Your task to perform on an android device: toggle location history Image 0: 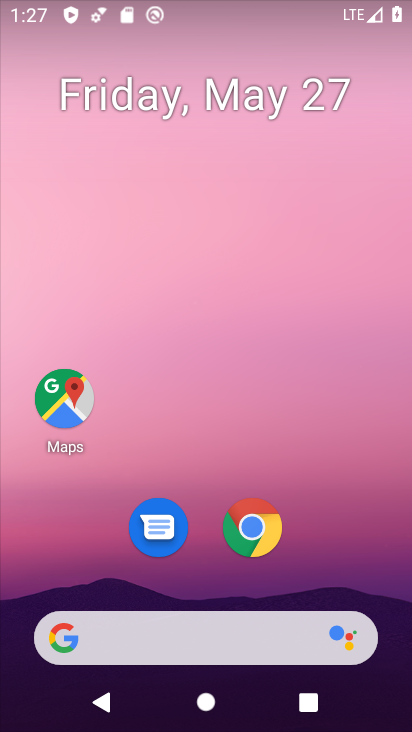
Step 0: click (265, 700)
Your task to perform on an android device: toggle location history Image 1: 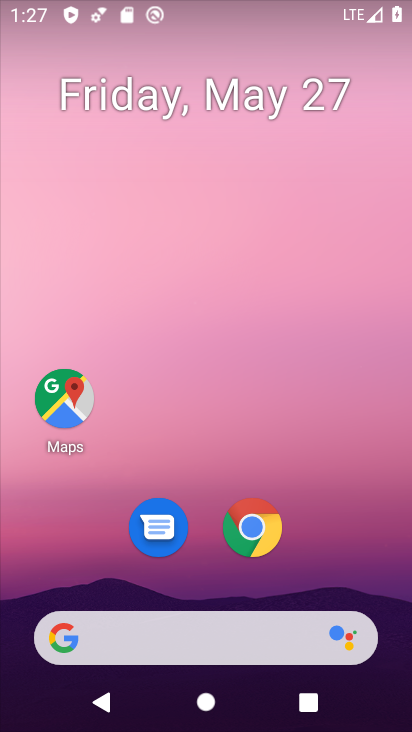
Step 1: click (49, 388)
Your task to perform on an android device: toggle location history Image 2: 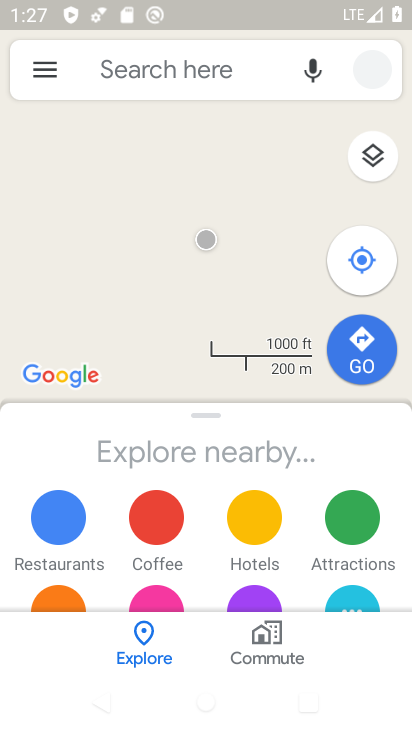
Step 2: click (42, 64)
Your task to perform on an android device: toggle location history Image 3: 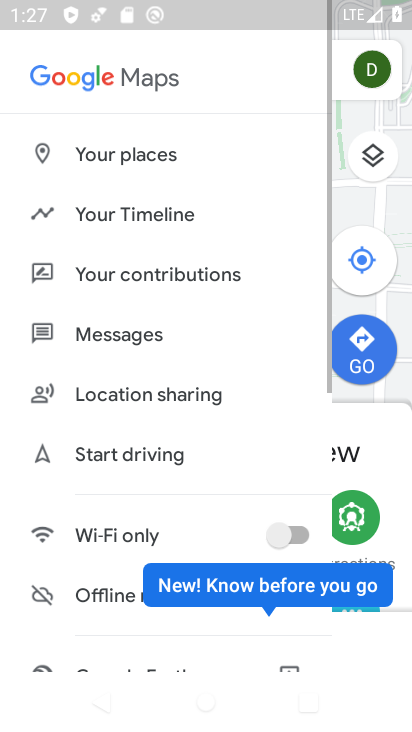
Step 3: click (42, 76)
Your task to perform on an android device: toggle location history Image 4: 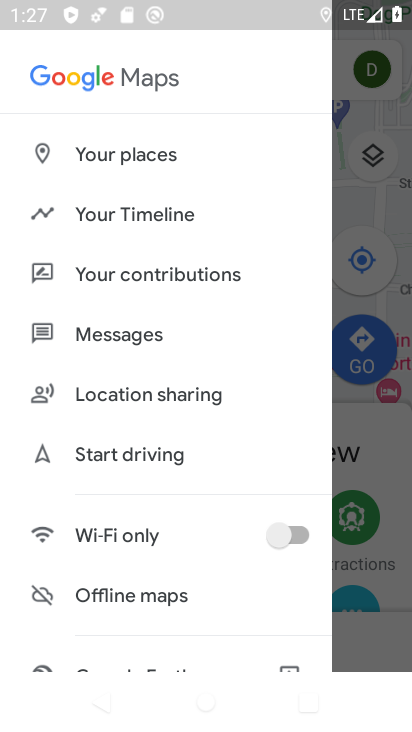
Step 4: drag from (164, 594) to (161, 53)
Your task to perform on an android device: toggle location history Image 5: 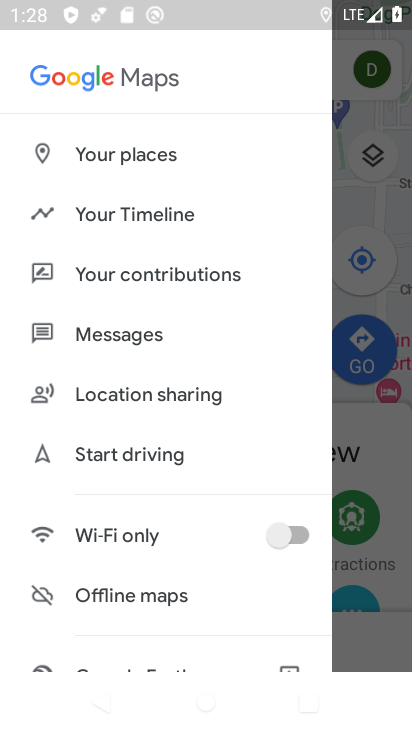
Step 5: click (186, 203)
Your task to perform on an android device: toggle location history Image 6: 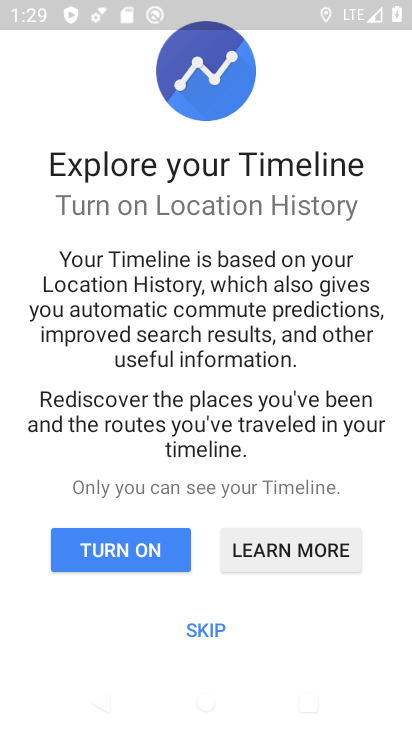
Step 6: click (210, 629)
Your task to perform on an android device: toggle location history Image 7: 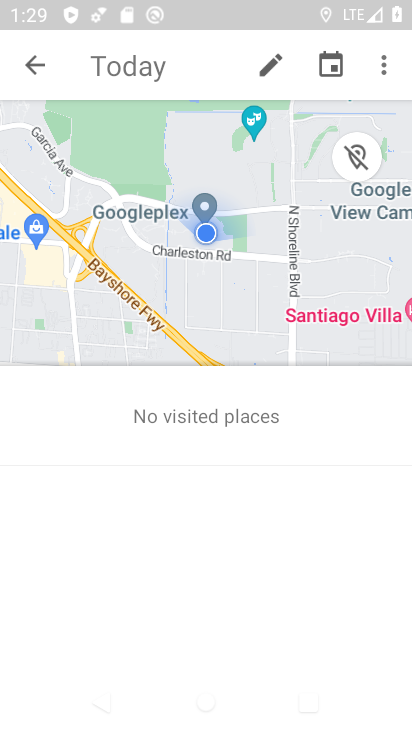
Step 7: click (385, 64)
Your task to perform on an android device: toggle location history Image 8: 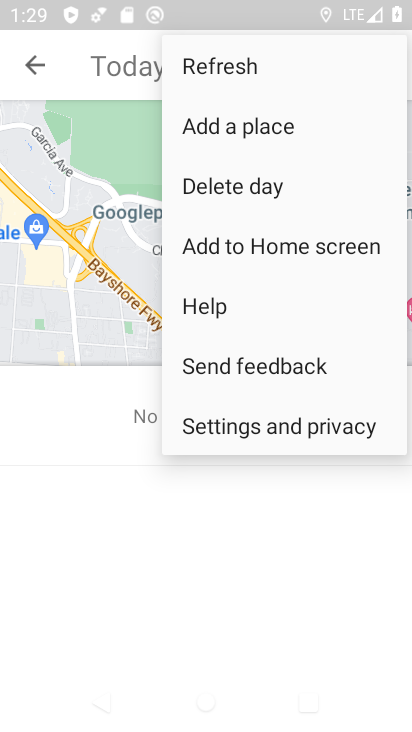
Step 8: click (276, 425)
Your task to perform on an android device: toggle location history Image 9: 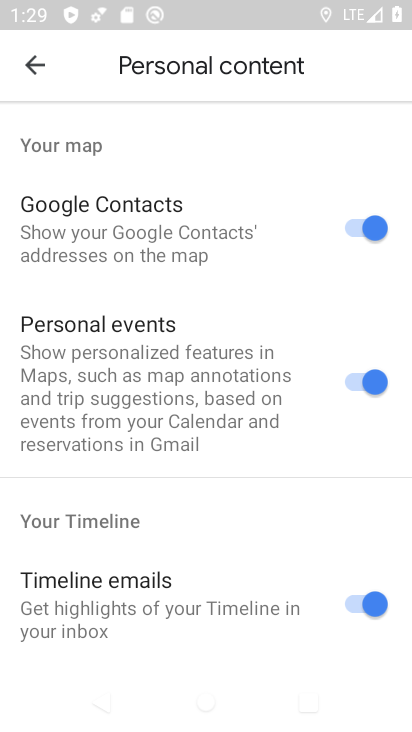
Step 9: drag from (210, 589) to (292, 94)
Your task to perform on an android device: toggle location history Image 10: 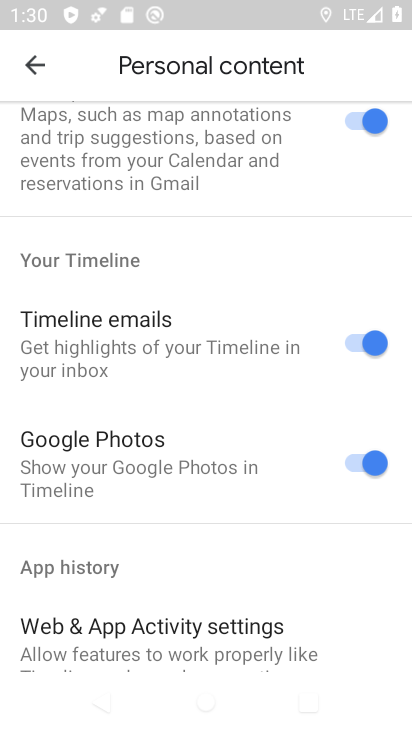
Step 10: drag from (244, 591) to (311, 208)
Your task to perform on an android device: toggle location history Image 11: 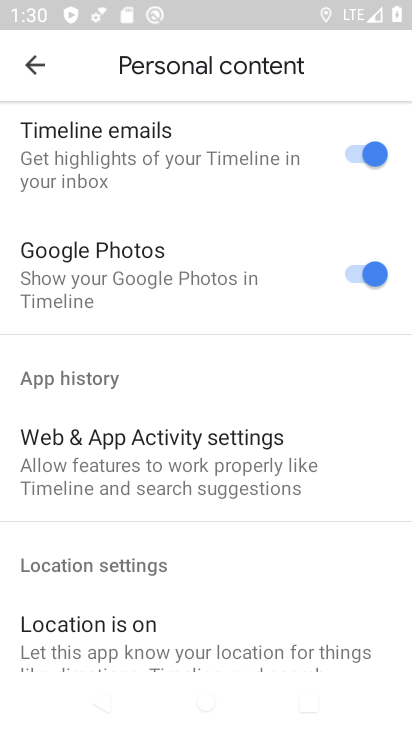
Step 11: drag from (266, 673) to (347, 242)
Your task to perform on an android device: toggle location history Image 12: 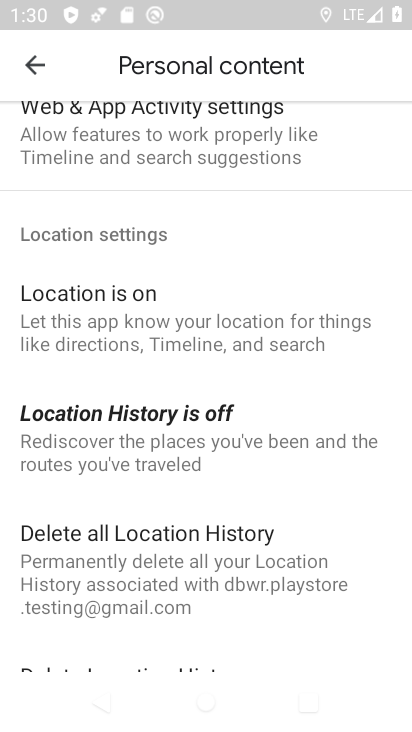
Step 12: click (159, 466)
Your task to perform on an android device: toggle location history Image 13: 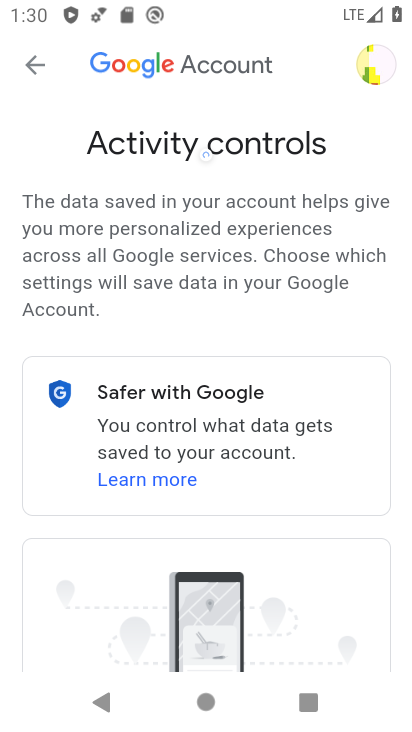
Step 13: drag from (225, 466) to (372, 47)
Your task to perform on an android device: toggle location history Image 14: 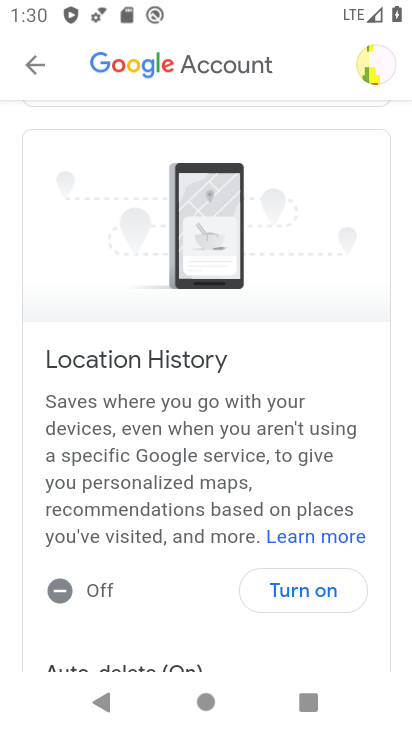
Step 14: click (309, 598)
Your task to perform on an android device: toggle location history Image 15: 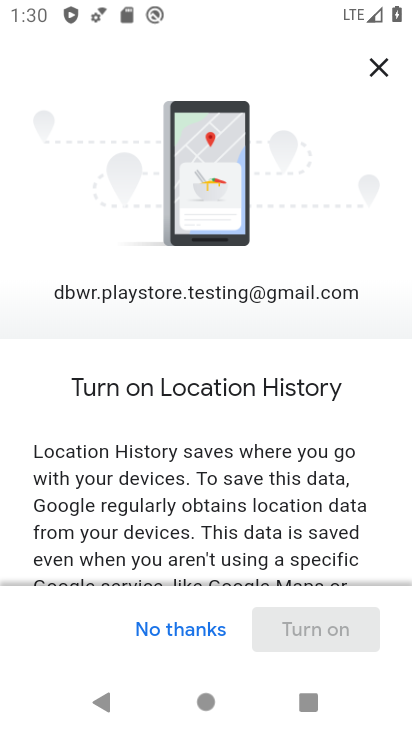
Step 15: drag from (254, 452) to (348, 21)
Your task to perform on an android device: toggle location history Image 16: 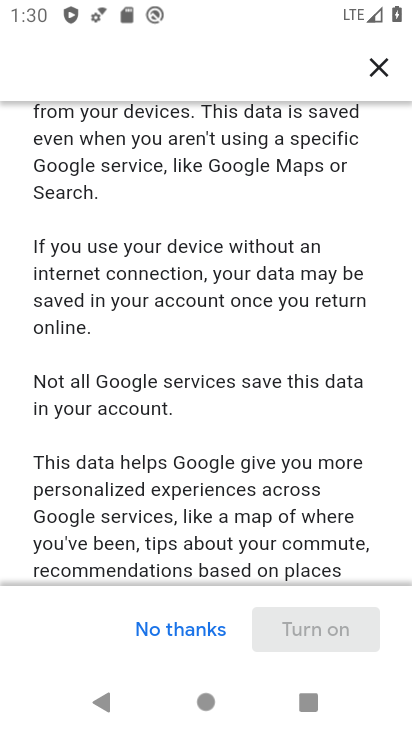
Step 16: drag from (228, 573) to (370, 1)
Your task to perform on an android device: toggle location history Image 17: 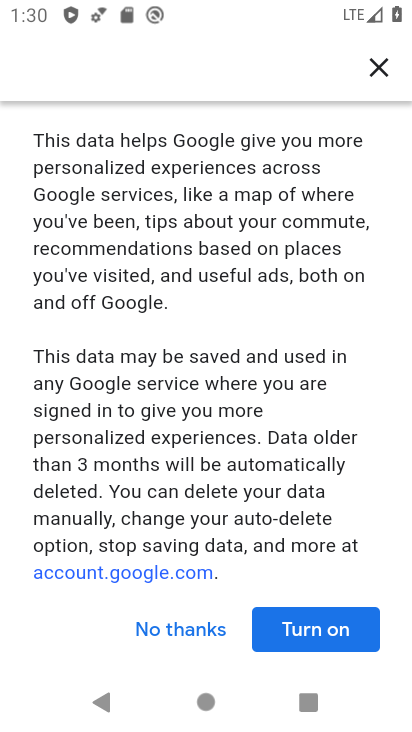
Step 17: click (347, 630)
Your task to perform on an android device: toggle location history Image 18: 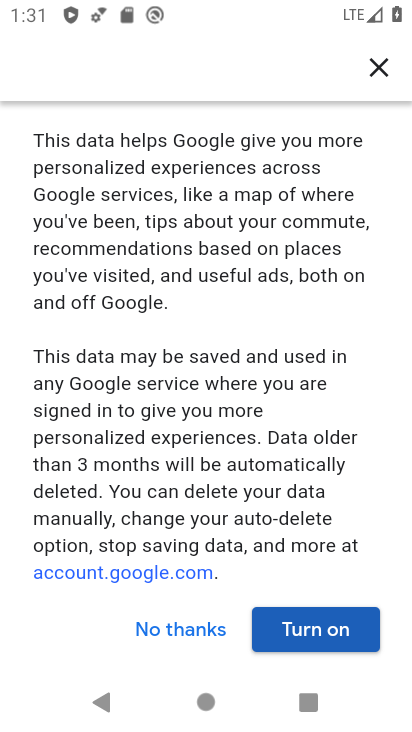
Step 18: click (288, 642)
Your task to perform on an android device: toggle location history Image 19: 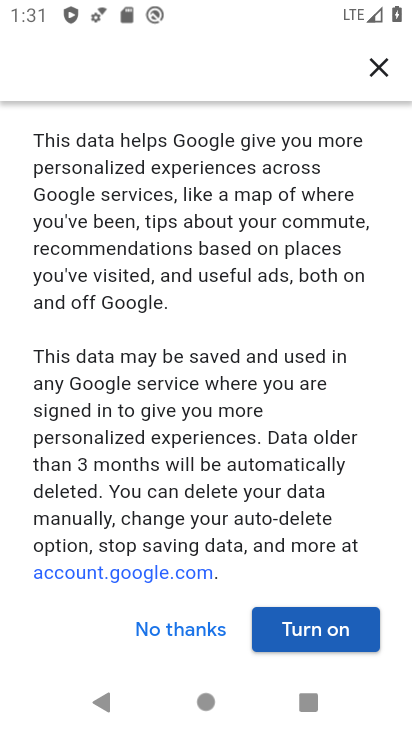
Step 19: click (301, 619)
Your task to perform on an android device: toggle location history Image 20: 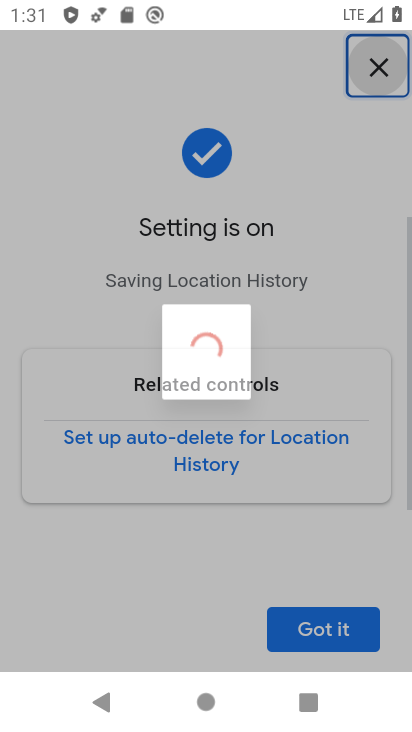
Step 20: click (323, 630)
Your task to perform on an android device: toggle location history Image 21: 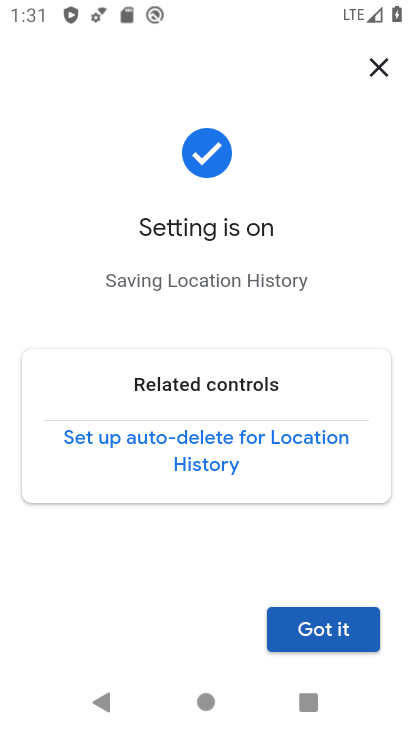
Step 21: task complete